Your task to perform on an android device: Search for pizza restaurants on Maps Image 0: 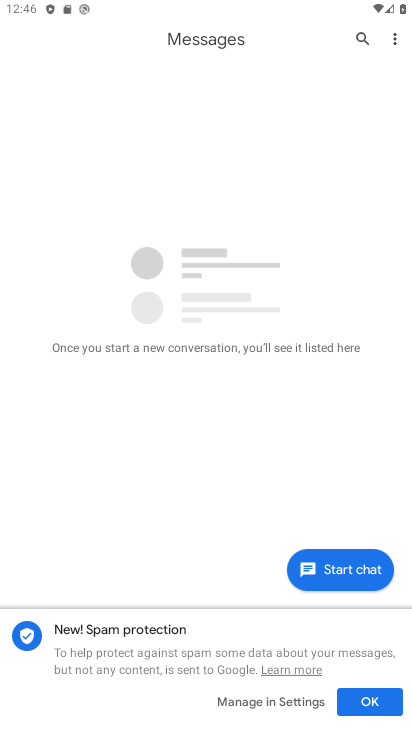
Step 0: press home button
Your task to perform on an android device: Search for pizza restaurants on Maps Image 1: 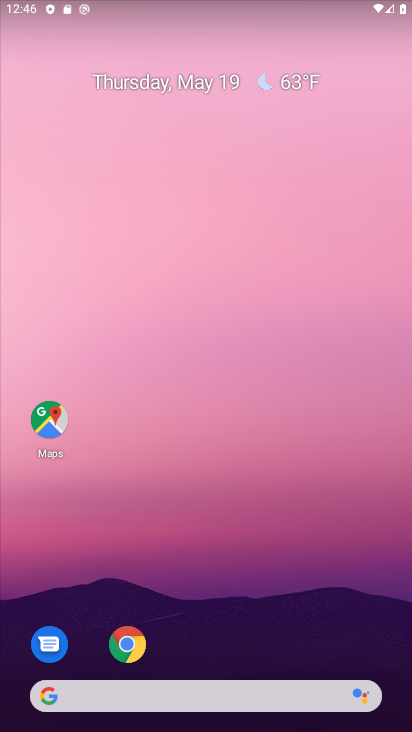
Step 1: click (59, 416)
Your task to perform on an android device: Search for pizza restaurants on Maps Image 2: 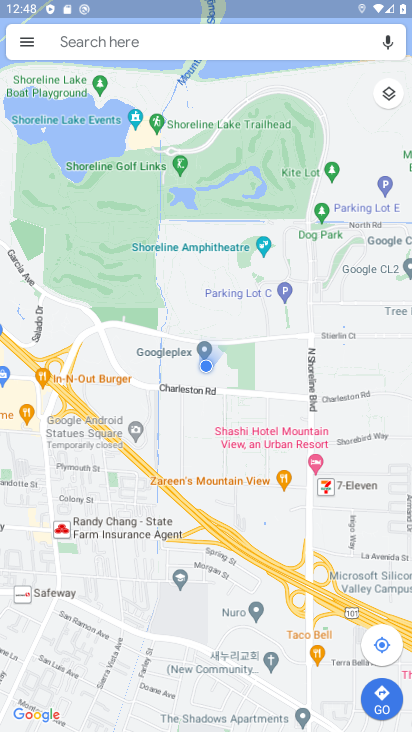
Step 2: click (95, 36)
Your task to perform on an android device: Search for pizza restaurants on Maps Image 3: 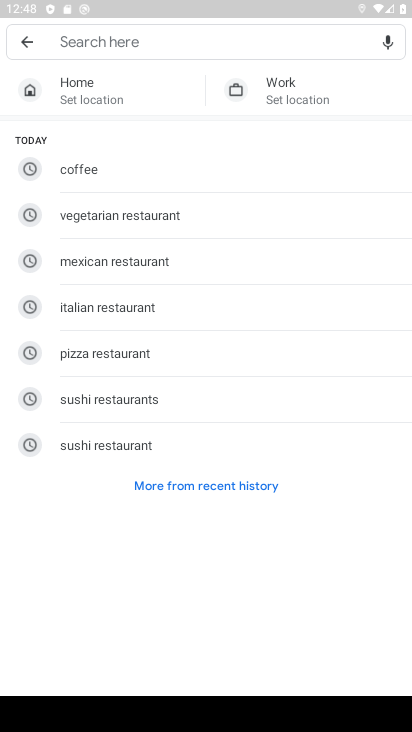
Step 3: type "pizza restaurants"
Your task to perform on an android device: Search for pizza restaurants on Maps Image 4: 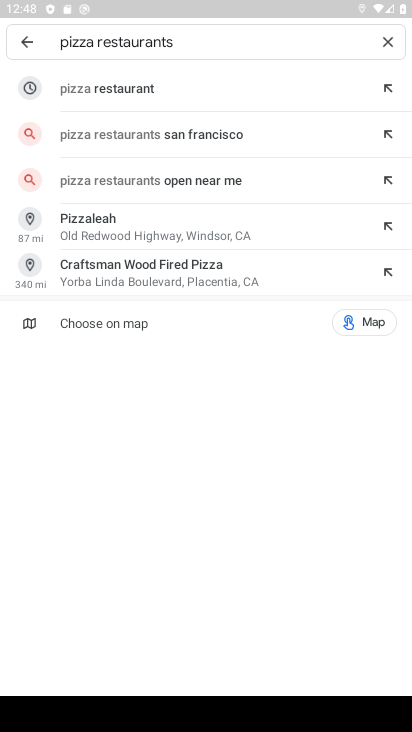
Step 4: click (126, 90)
Your task to perform on an android device: Search for pizza restaurants on Maps Image 5: 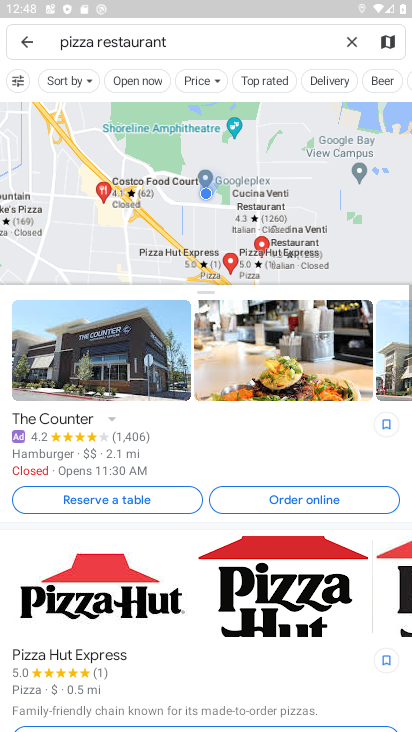
Step 5: task complete